Your task to perform on an android device: change timer sound Image 0: 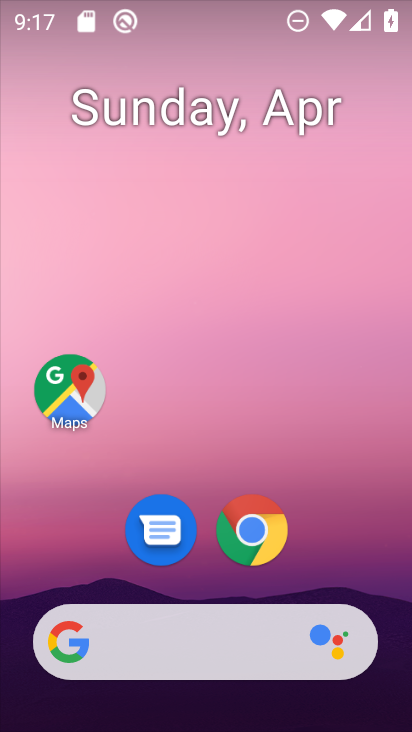
Step 0: drag from (357, 537) to (309, 14)
Your task to perform on an android device: change timer sound Image 1: 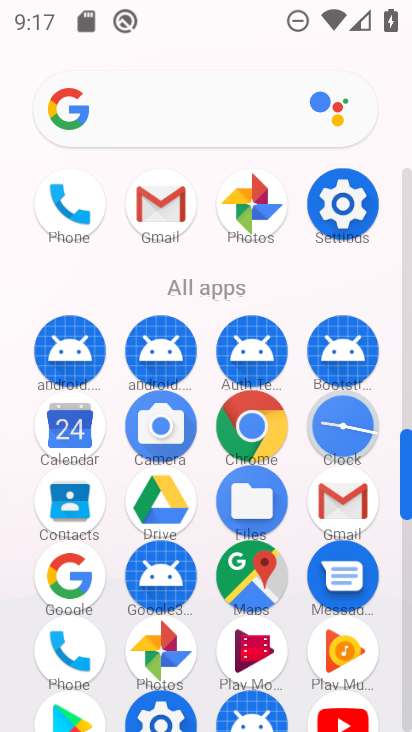
Step 1: click (335, 430)
Your task to perform on an android device: change timer sound Image 2: 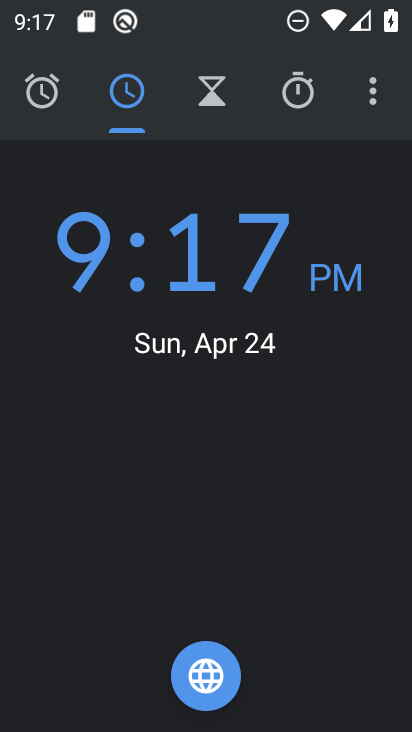
Step 2: click (381, 101)
Your task to perform on an android device: change timer sound Image 3: 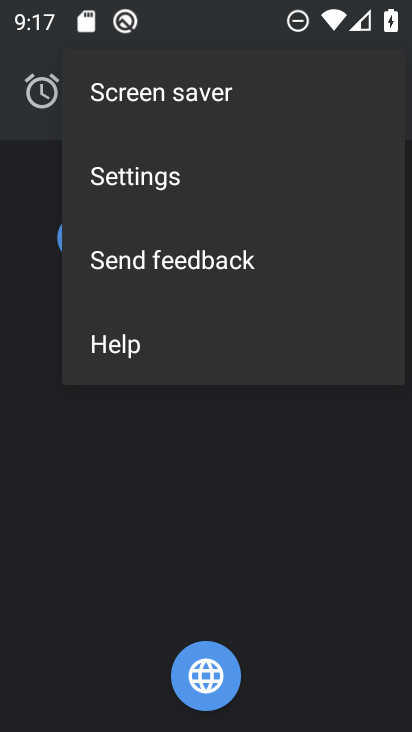
Step 3: click (166, 179)
Your task to perform on an android device: change timer sound Image 4: 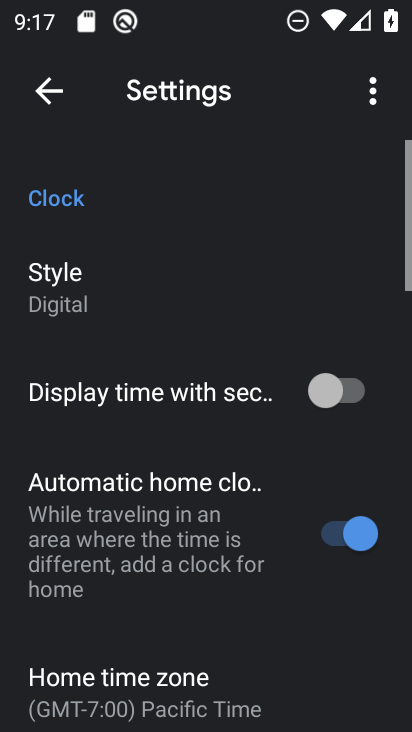
Step 4: drag from (177, 475) to (170, 53)
Your task to perform on an android device: change timer sound Image 5: 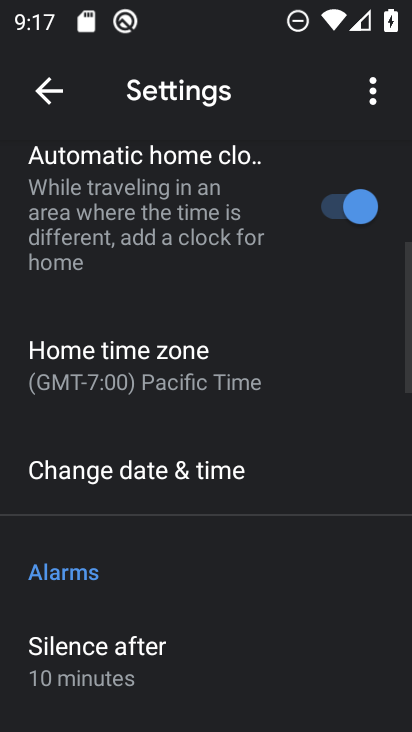
Step 5: drag from (107, 477) to (122, 124)
Your task to perform on an android device: change timer sound Image 6: 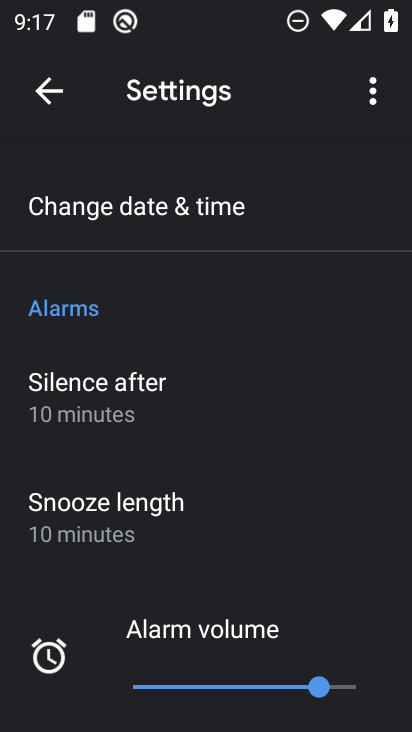
Step 6: drag from (227, 522) to (207, 94)
Your task to perform on an android device: change timer sound Image 7: 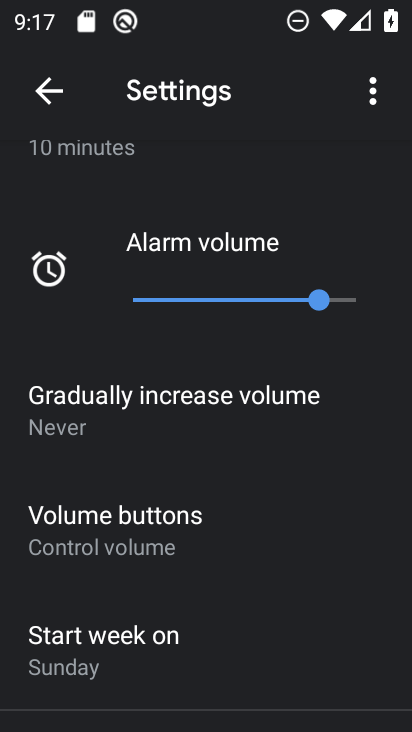
Step 7: drag from (225, 566) to (220, 84)
Your task to perform on an android device: change timer sound Image 8: 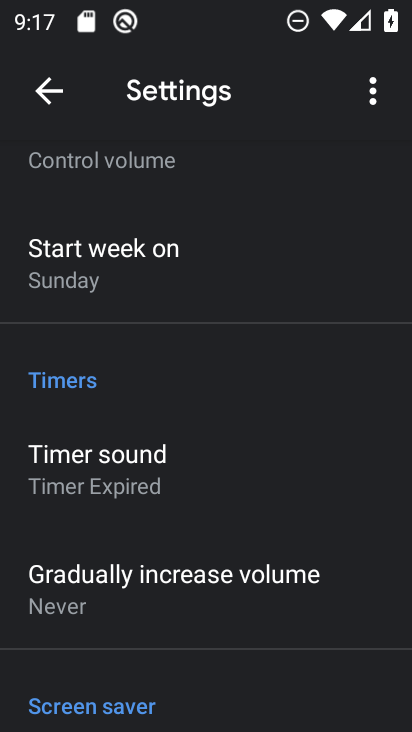
Step 8: click (109, 470)
Your task to perform on an android device: change timer sound Image 9: 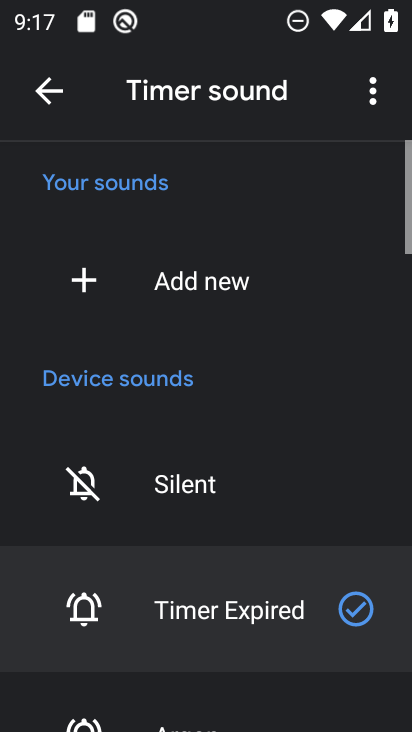
Step 9: drag from (273, 532) to (266, 161)
Your task to perform on an android device: change timer sound Image 10: 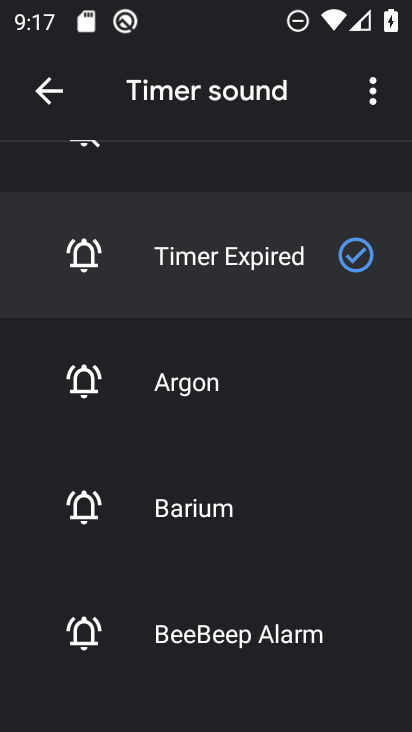
Step 10: click (99, 500)
Your task to perform on an android device: change timer sound Image 11: 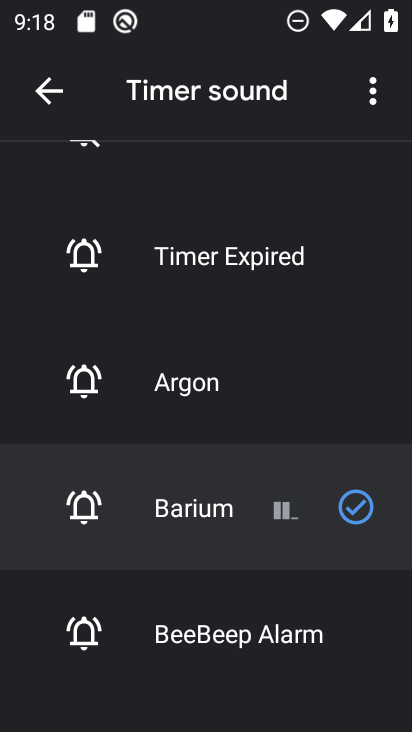
Step 11: task complete